Your task to perform on an android device: Open battery settings Image 0: 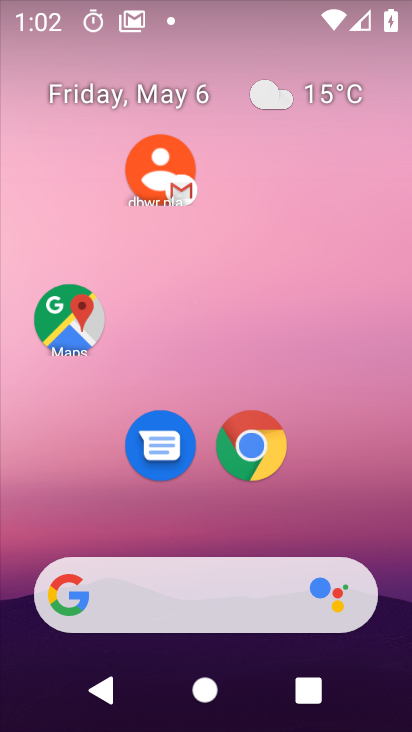
Step 0: drag from (404, 687) to (285, 202)
Your task to perform on an android device: Open battery settings Image 1: 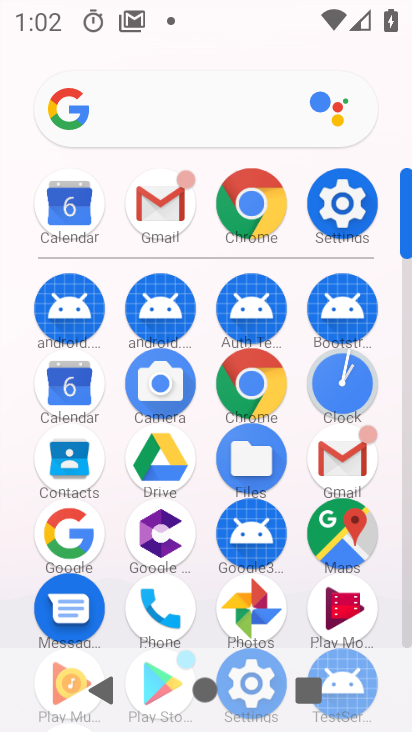
Step 1: click (276, 123)
Your task to perform on an android device: Open battery settings Image 2: 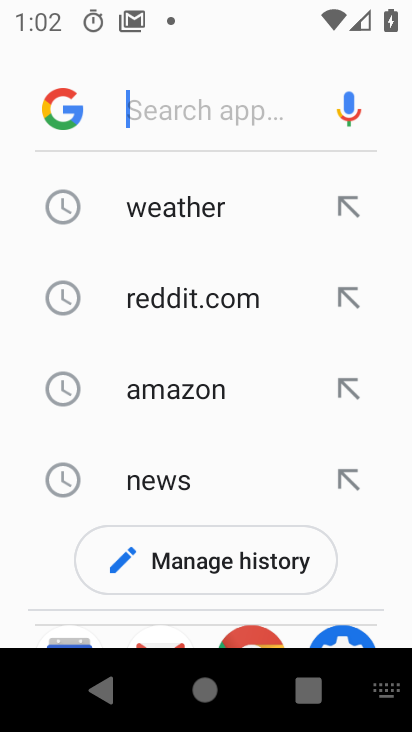
Step 2: press home button
Your task to perform on an android device: Open battery settings Image 3: 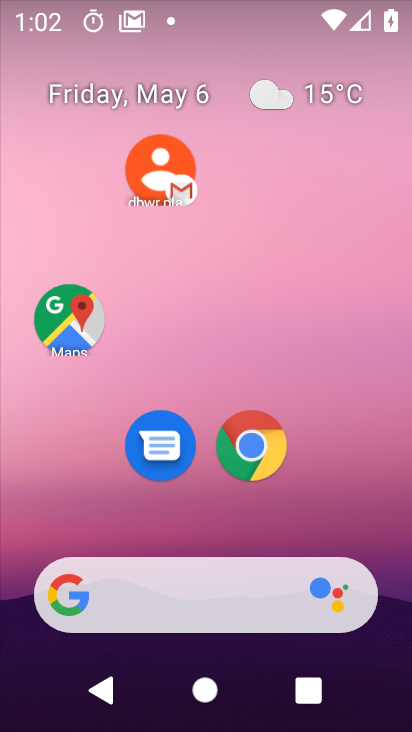
Step 3: drag from (361, 523) to (184, 94)
Your task to perform on an android device: Open battery settings Image 4: 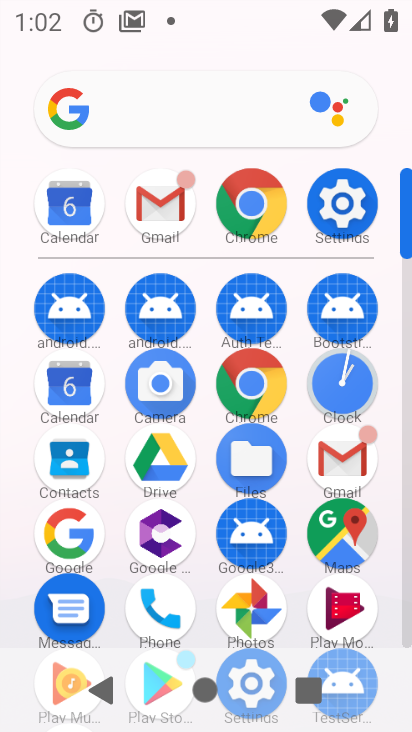
Step 4: drag from (333, 533) to (218, 185)
Your task to perform on an android device: Open battery settings Image 5: 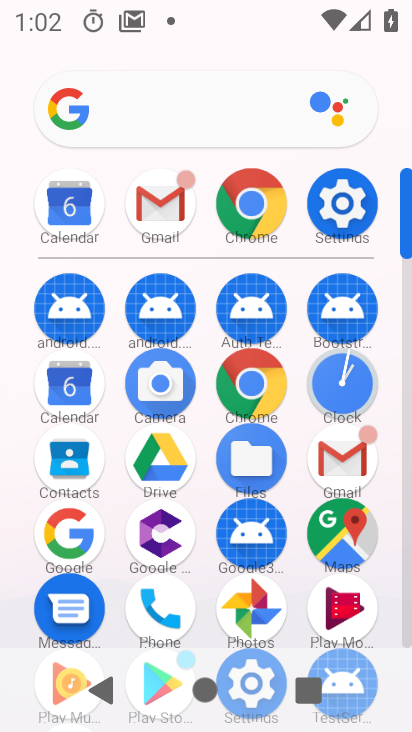
Step 5: click (353, 203)
Your task to perform on an android device: Open battery settings Image 6: 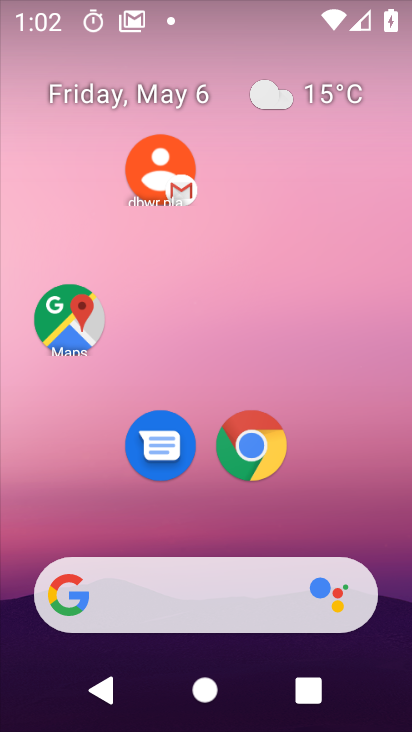
Step 6: click (353, 203)
Your task to perform on an android device: Open battery settings Image 7: 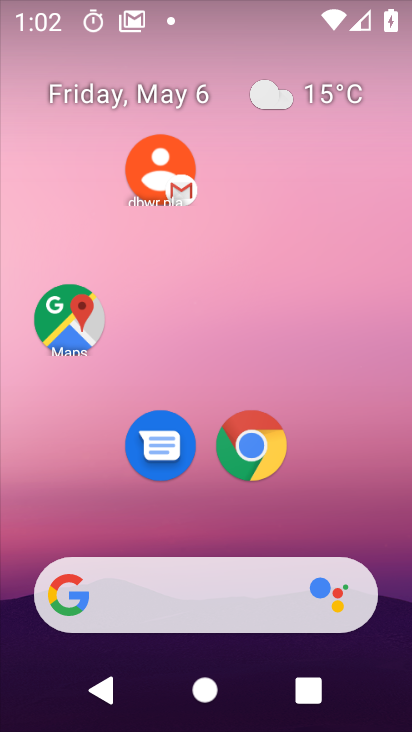
Step 7: drag from (385, 550) to (189, 49)
Your task to perform on an android device: Open battery settings Image 8: 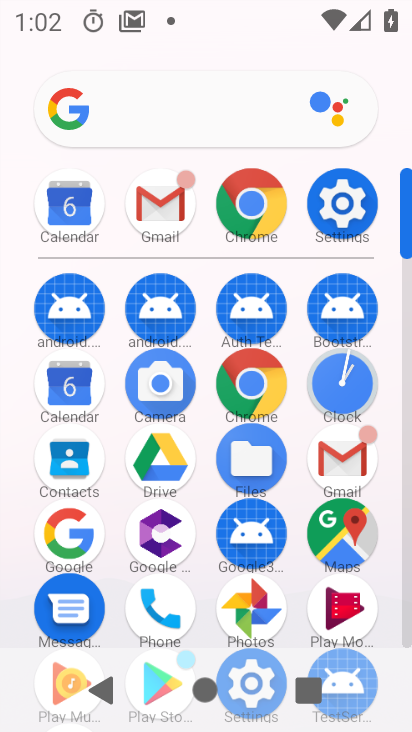
Step 8: click (340, 215)
Your task to perform on an android device: Open battery settings Image 9: 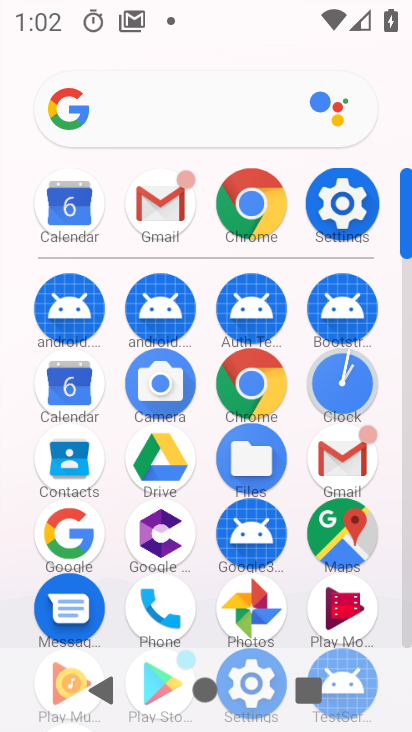
Step 9: click (341, 214)
Your task to perform on an android device: Open battery settings Image 10: 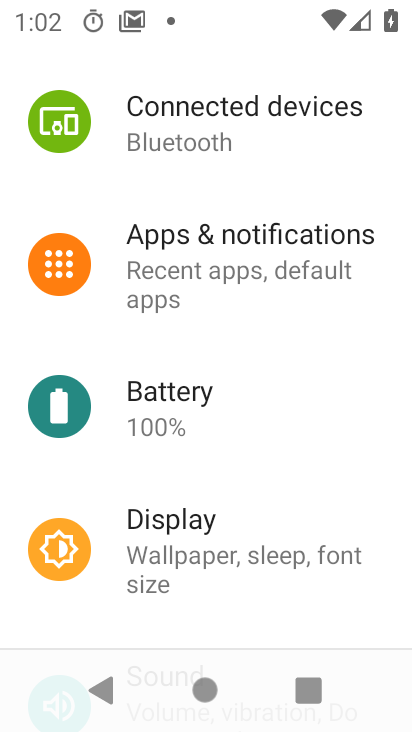
Step 10: click (151, 413)
Your task to perform on an android device: Open battery settings Image 11: 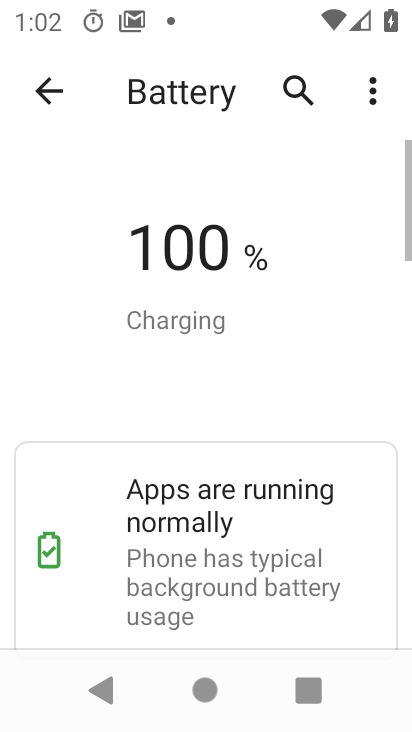
Step 11: task complete